Your task to perform on an android device: Open Chrome and go to settings Image 0: 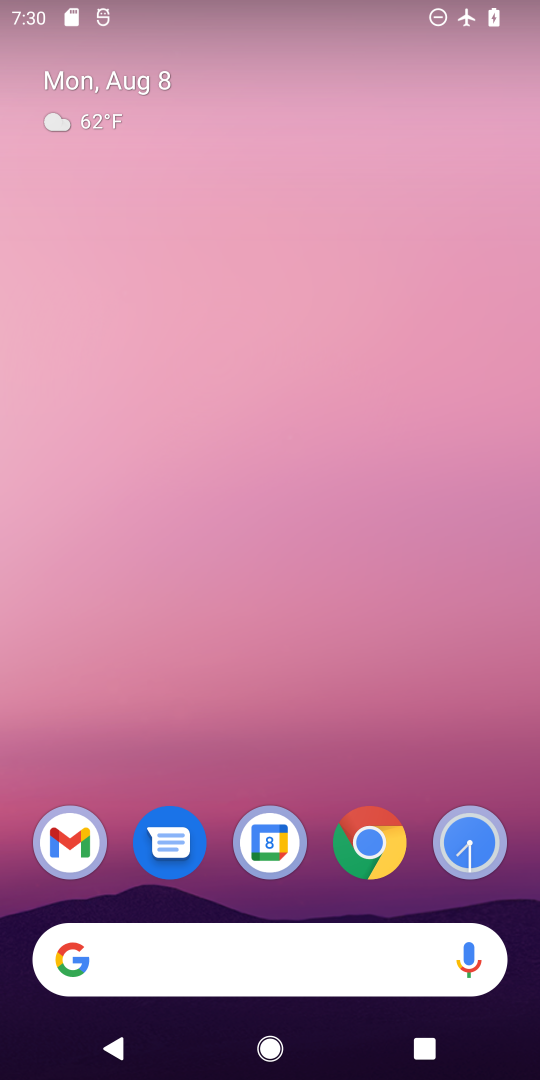
Step 0: drag from (339, 903) to (289, 119)
Your task to perform on an android device: Open Chrome and go to settings Image 1: 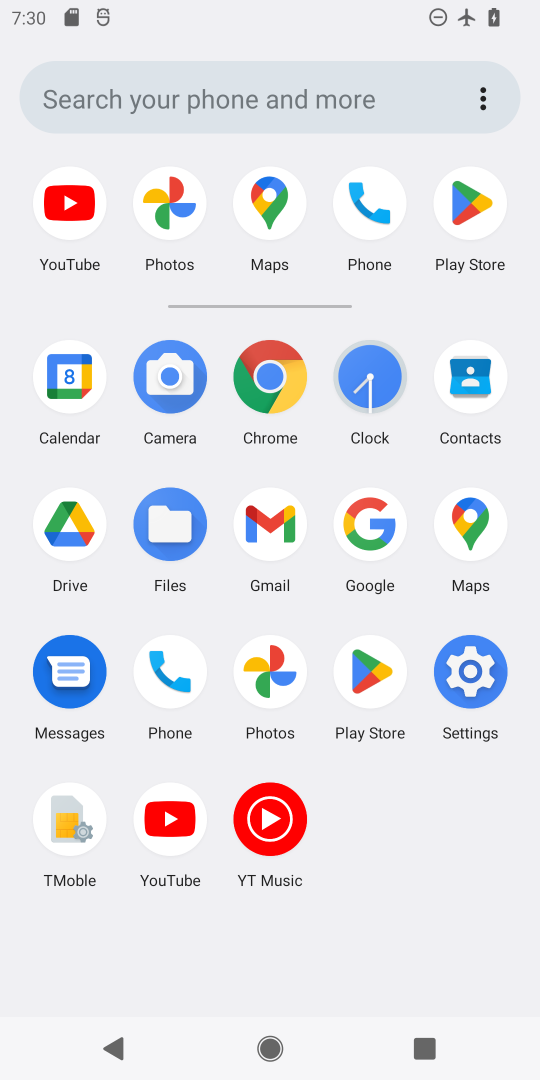
Step 1: click (268, 392)
Your task to perform on an android device: Open Chrome and go to settings Image 2: 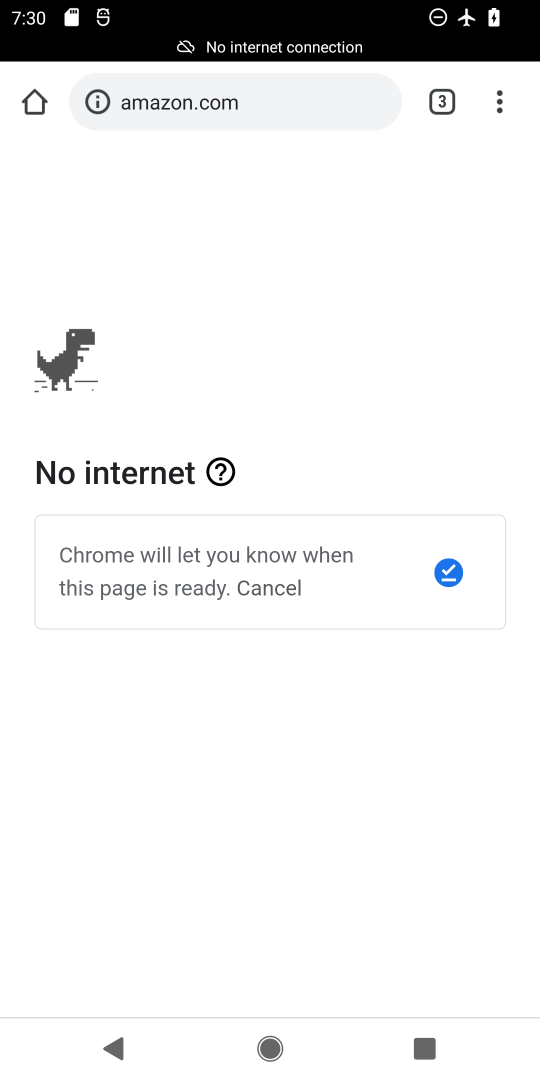
Step 2: click (504, 104)
Your task to perform on an android device: Open Chrome and go to settings Image 3: 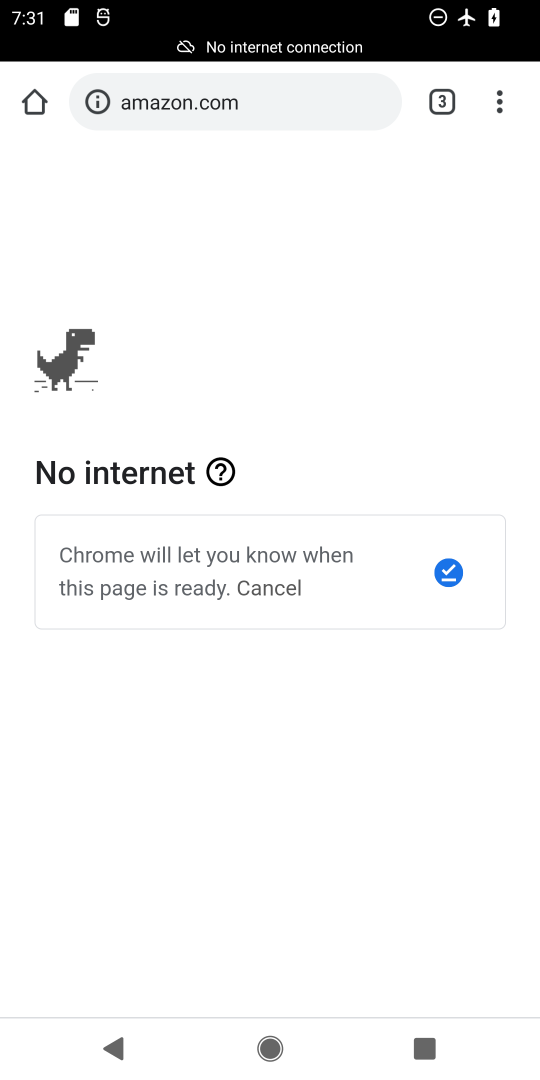
Step 3: task complete